Your task to perform on an android device: Search for a 36" x 48" whiteboard on Home Depot Image 0: 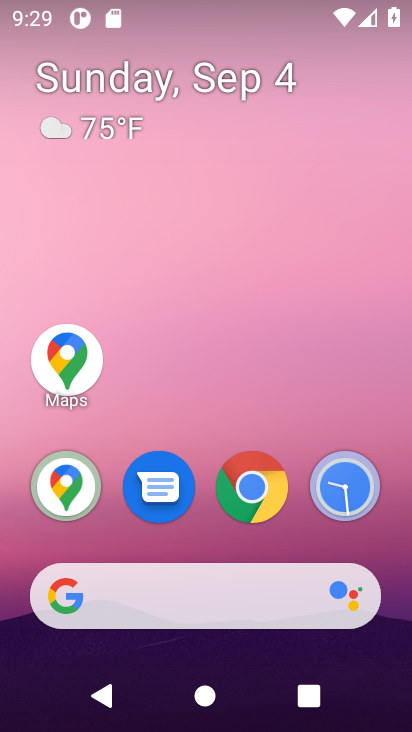
Step 0: click (274, 502)
Your task to perform on an android device: Search for a 36" x 48" whiteboard on Home Depot Image 1: 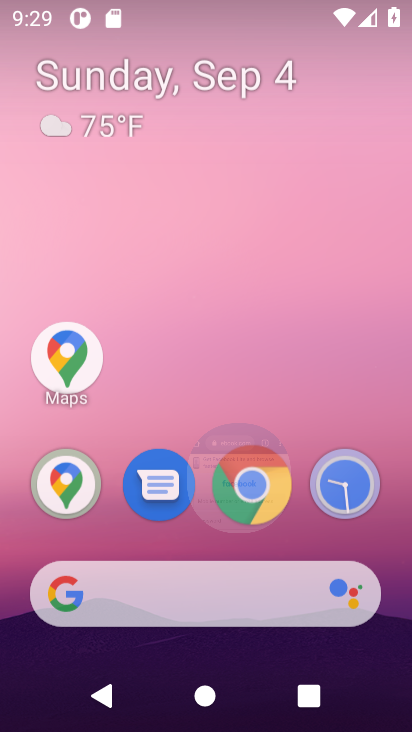
Step 1: task complete